Your task to perform on an android device: delete browsing data in the chrome app Image 0: 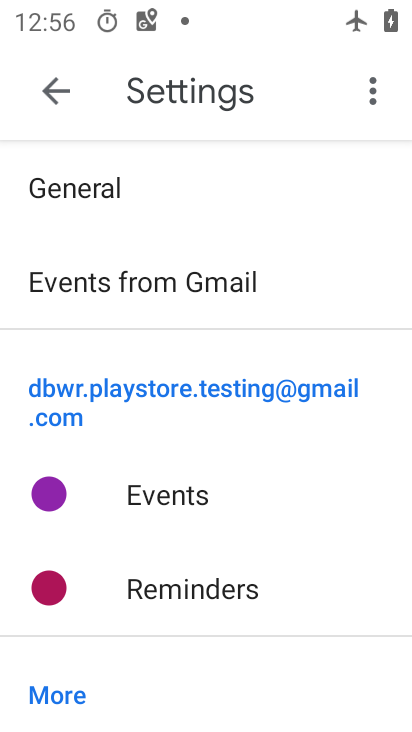
Step 0: press home button
Your task to perform on an android device: delete browsing data in the chrome app Image 1: 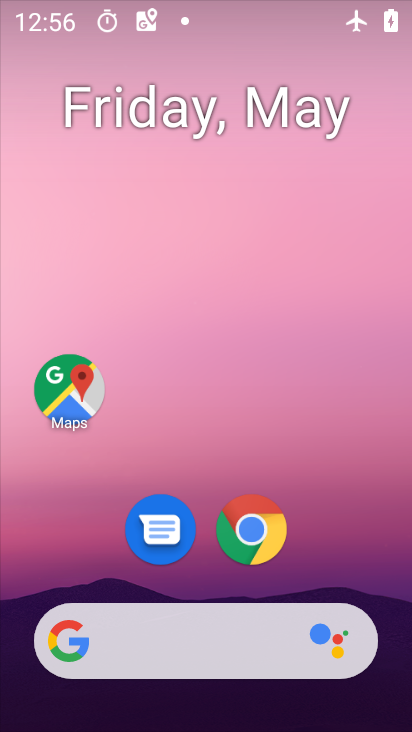
Step 1: drag from (234, 526) to (323, 158)
Your task to perform on an android device: delete browsing data in the chrome app Image 2: 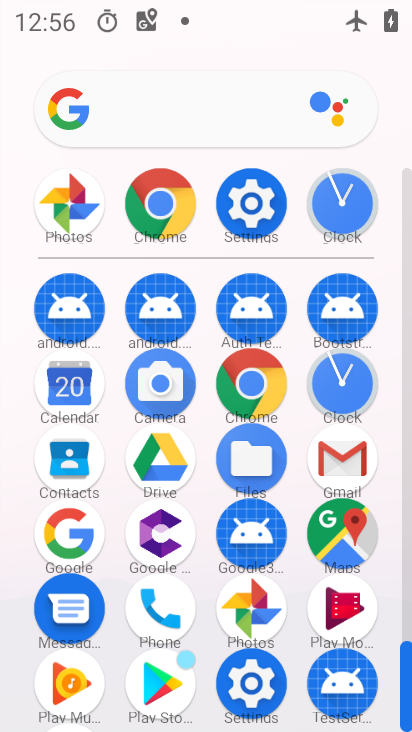
Step 2: click (264, 389)
Your task to perform on an android device: delete browsing data in the chrome app Image 3: 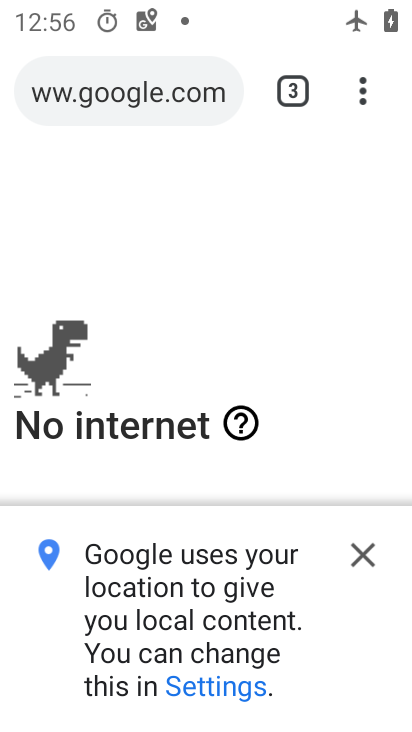
Step 3: click (365, 550)
Your task to perform on an android device: delete browsing data in the chrome app Image 4: 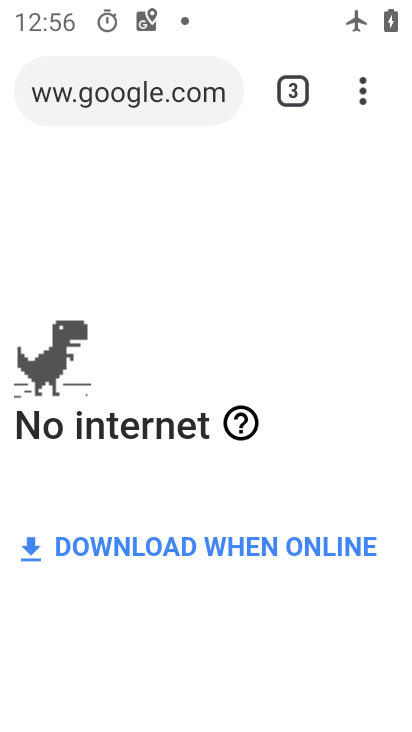
Step 4: click (371, 93)
Your task to perform on an android device: delete browsing data in the chrome app Image 5: 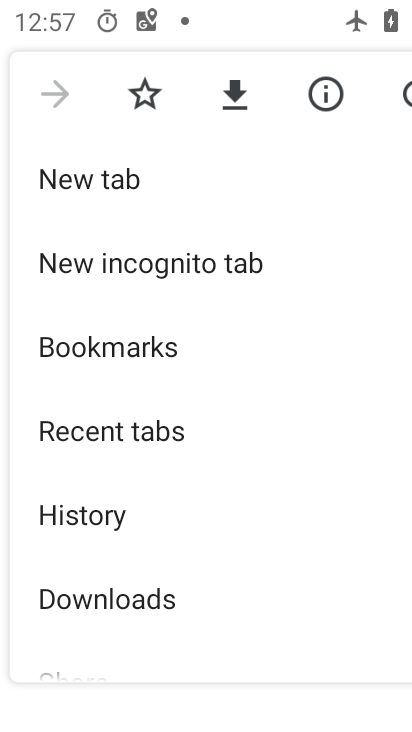
Step 5: drag from (173, 434) to (226, 236)
Your task to perform on an android device: delete browsing data in the chrome app Image 6: 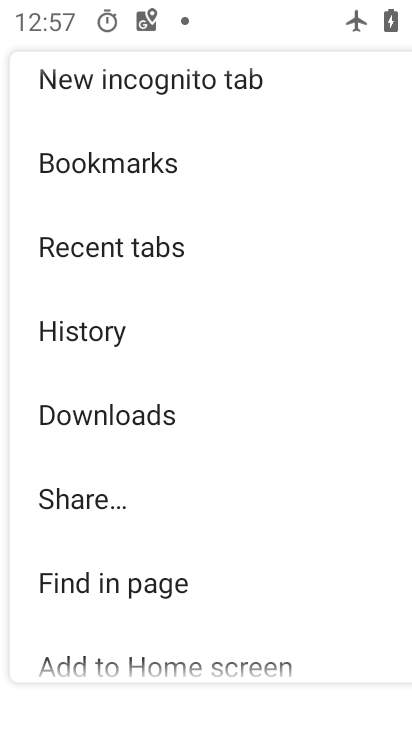
Step 6: drag from (227, 512) to (293, 132)
Your task to perform on an android device: delete browsing data in the chrome app Image 7: 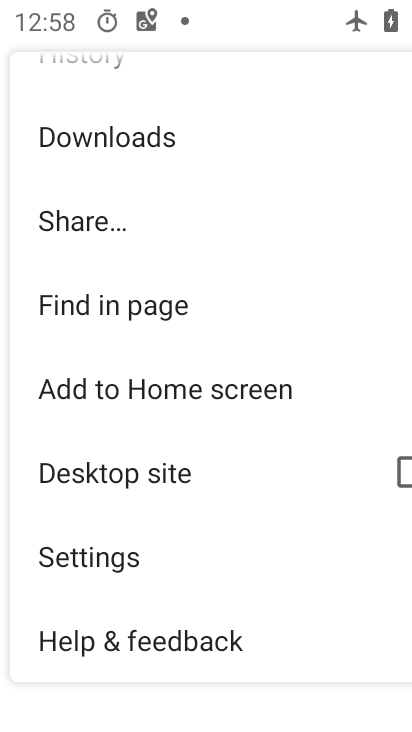
Step 7: drag from (161, 269) to (79, 720)
Your task to perform on an android device: delete browsing data in the chrome app Image 8: 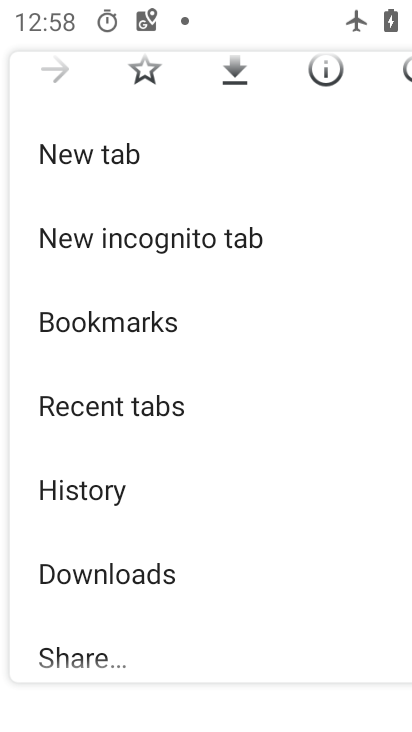
Step 8: click (122, 489)
Your task to perform on an android device: delete browsing data in the chrome app Image 9: 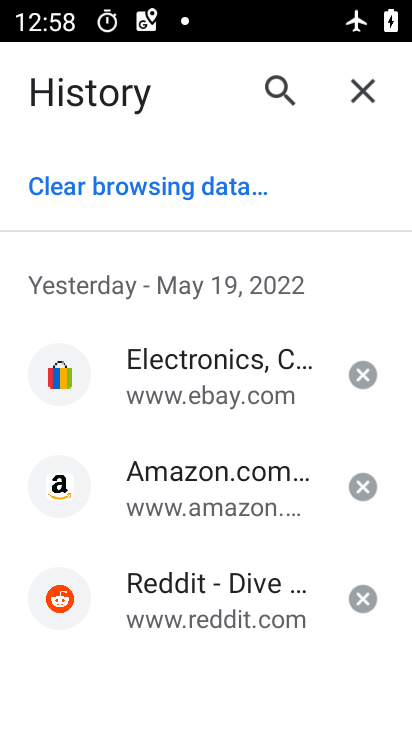
Step 9: click (138, 190)
Your task to perform on an android device: delete browsing data in the chrome app Image 10: 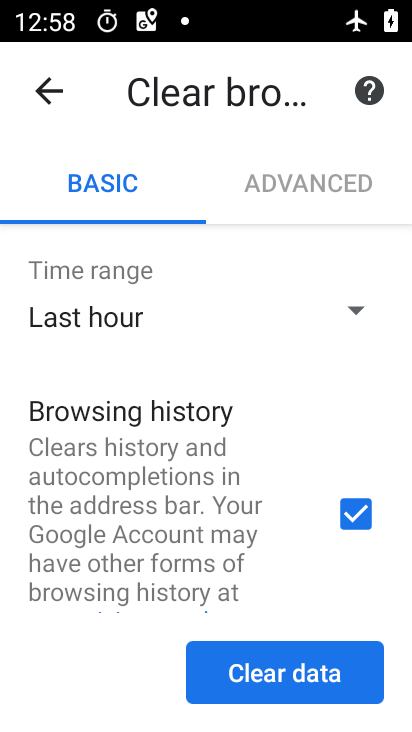
Step 10: click (333, 676)
Your task to perform on an android device: delete browsing data in the chrome app Image 11: 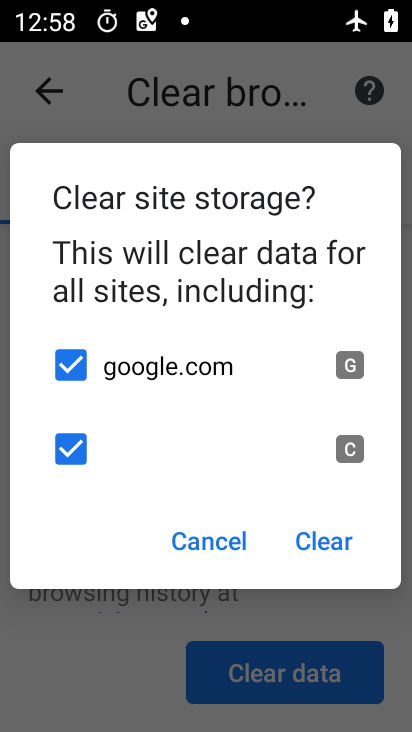
Step 11: click (306, 542)
Your task to perform on an android device: delete browsing data in the chrome app Image 12: 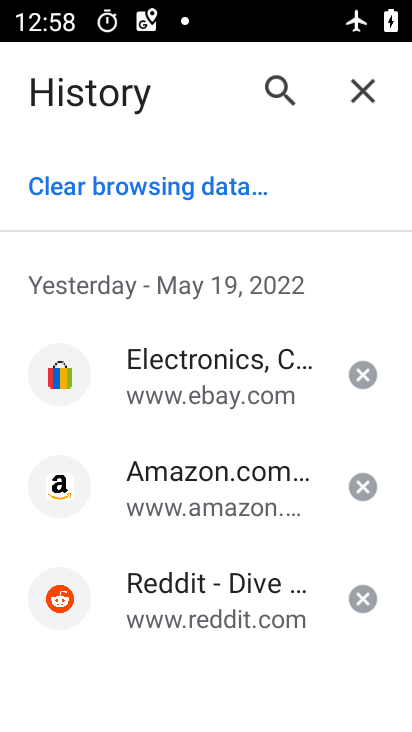
Step 12: task complete